Your task to perform on an android device: turn pop-ups on in chrome Image 0: 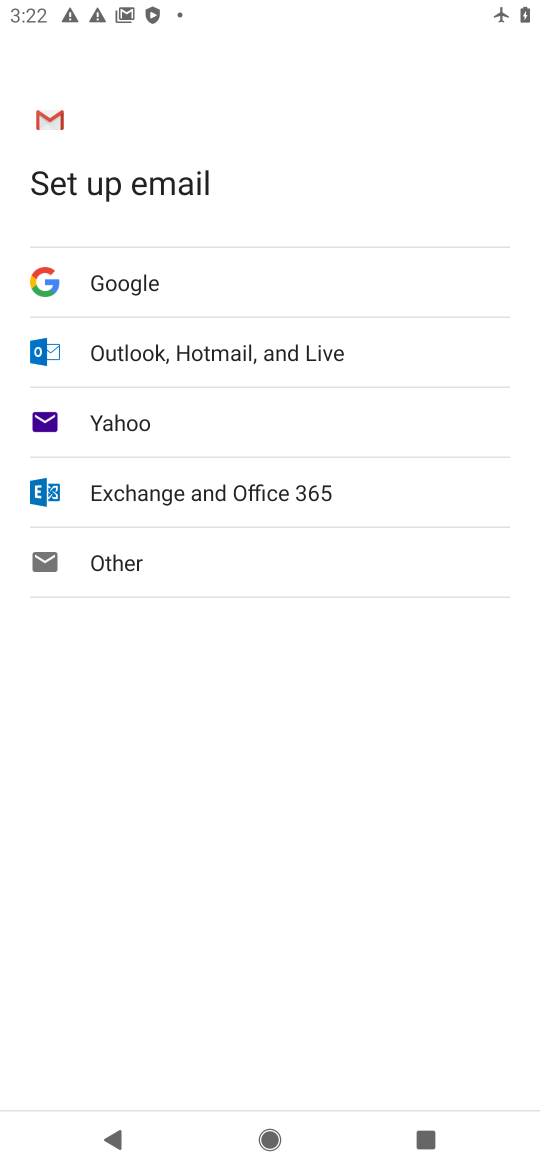
Step 0: press home button
Your task to perform on an android device: turn pop-ups on in chrome Image 1: 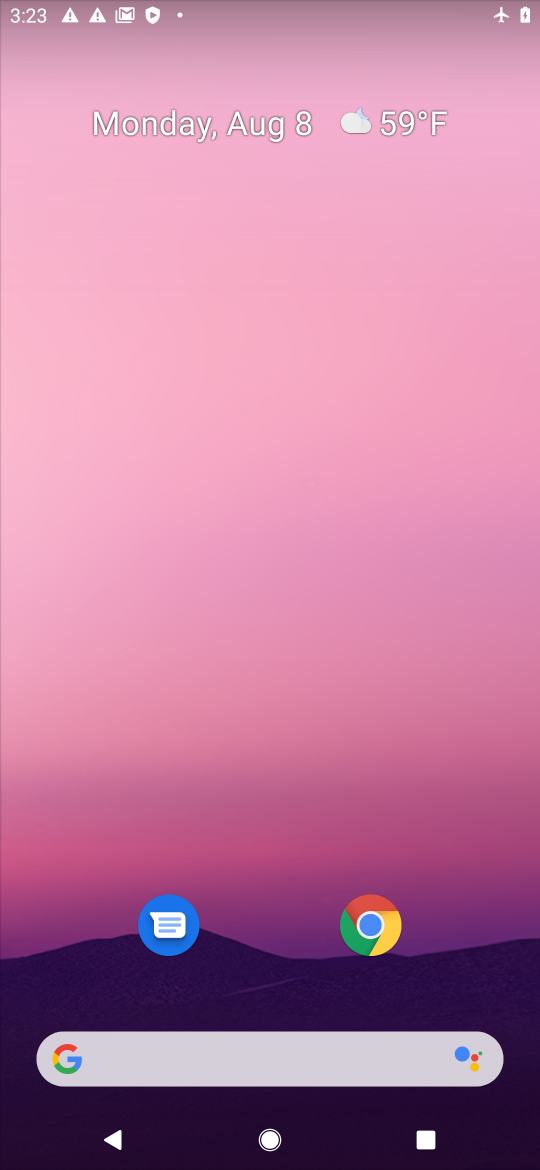
Step 1: click (368, 920)
Your task to perform on an android device: turn pop-ups on in chrome Image 2: 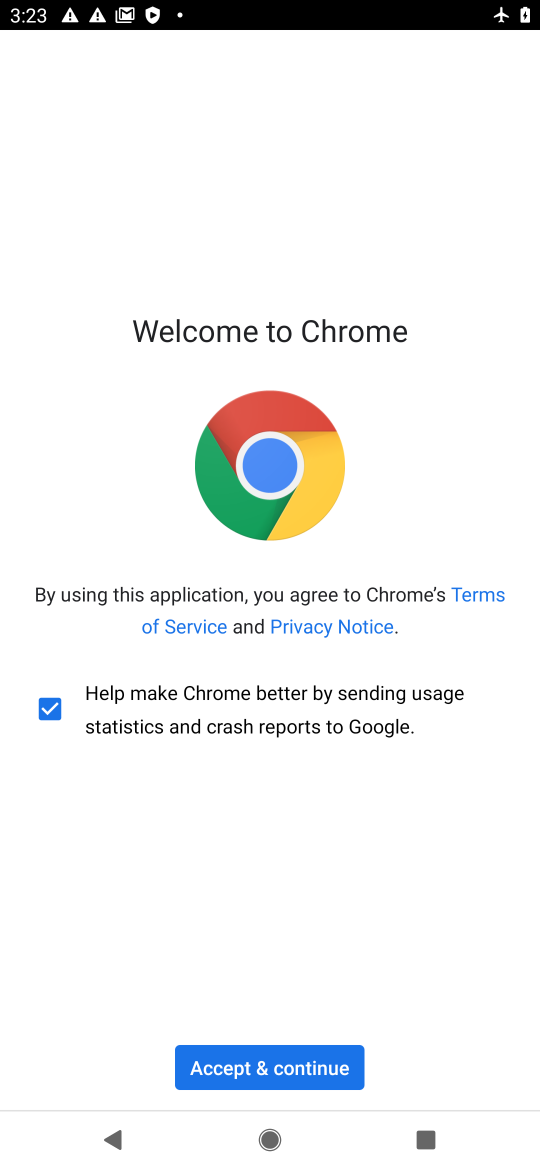
Step 2: click (281, 1063)
Your task to perform on an android device: turn pop-ups on in chrome Image 3: 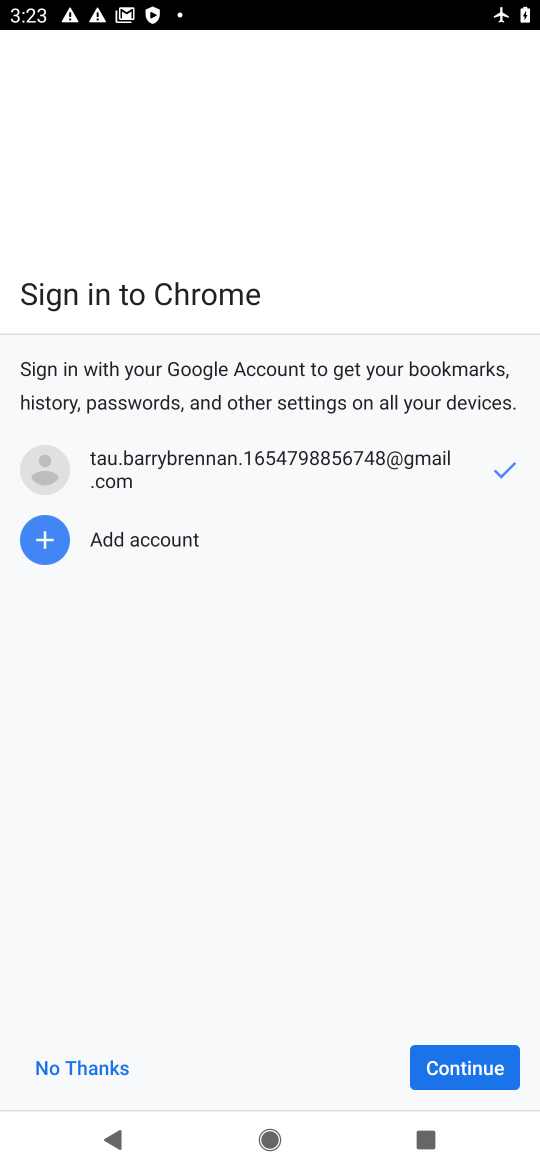
Step 3: click (465, 1062)
Your task to perform on an android device: turn pop-ups on in chrome Image 4: 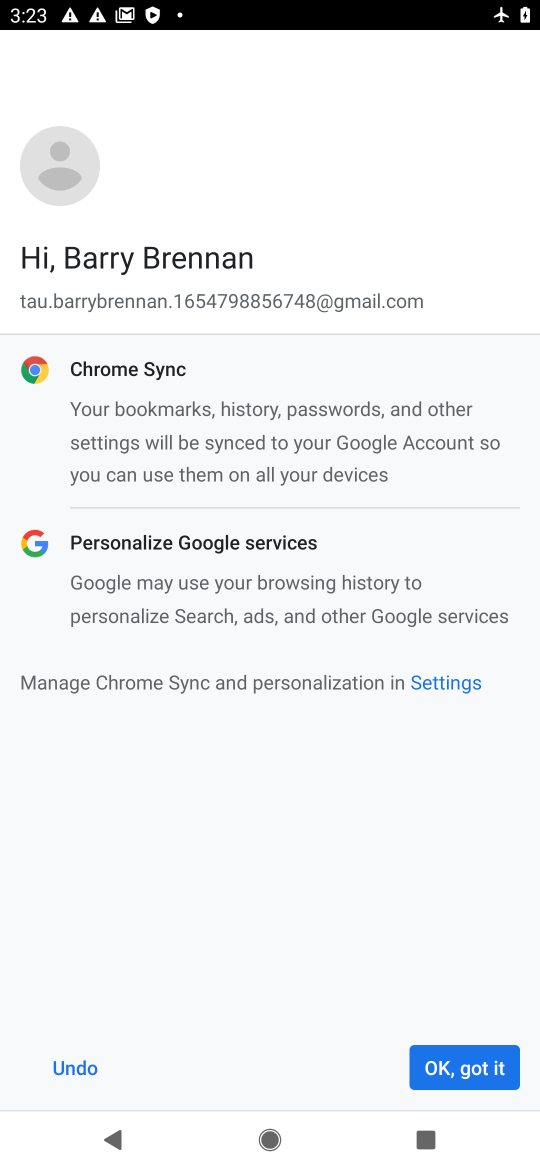
Step 4: click (465, 1062)
Your task to perform on an android device: turn pop-ups on in chrome Image 5: 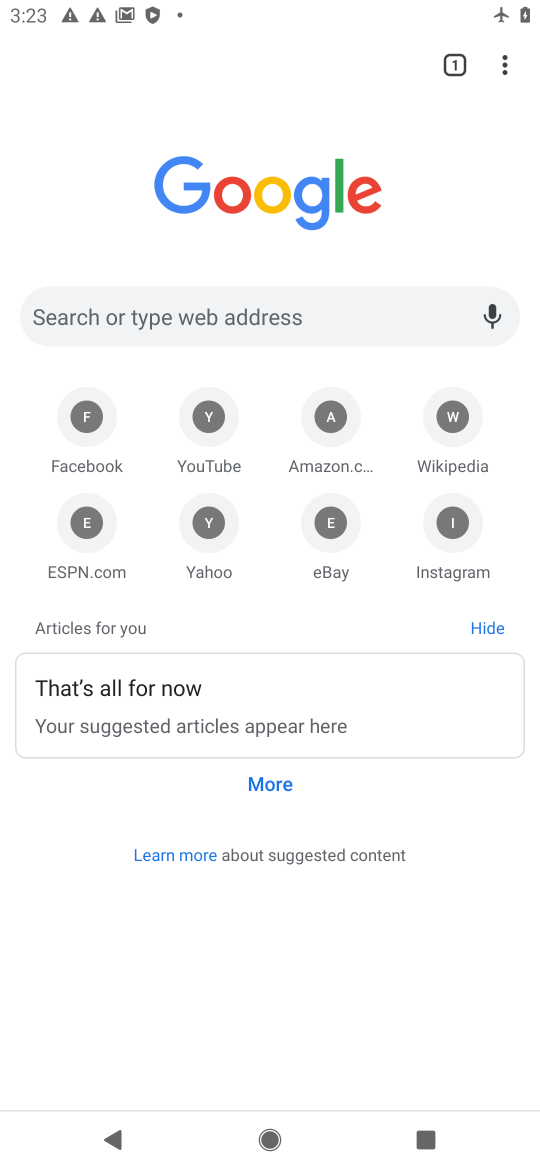
Step 5: drag from (507, 65) to (282, 540)
Your task to perform on an android device: turn pop-ups on in chrome Image 6: 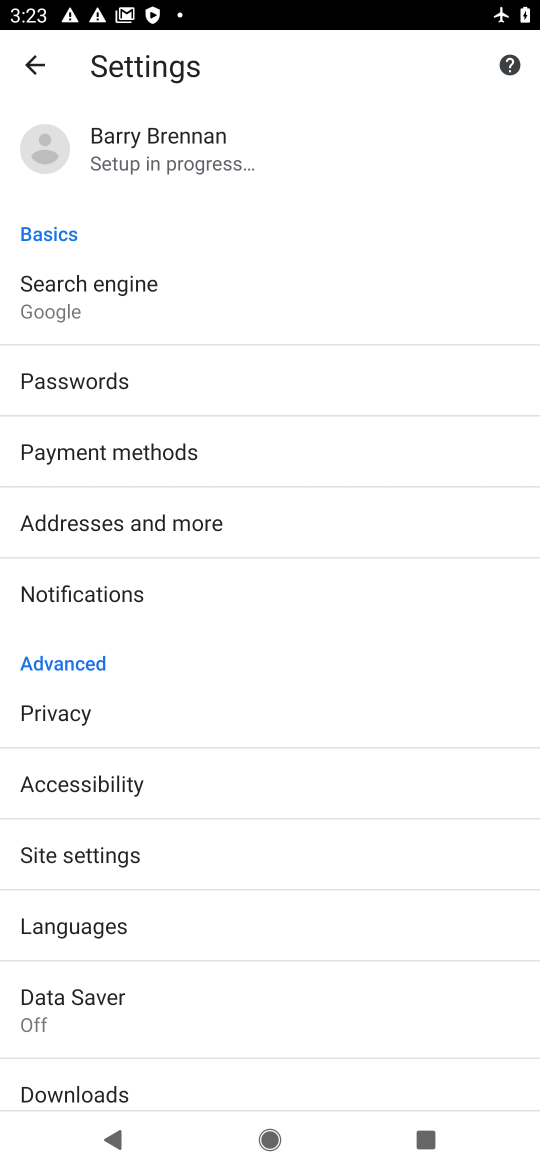
Step 6: click (65, 849)
Your task to perform on an android device: turn pop-ups on in chrome Image 7: 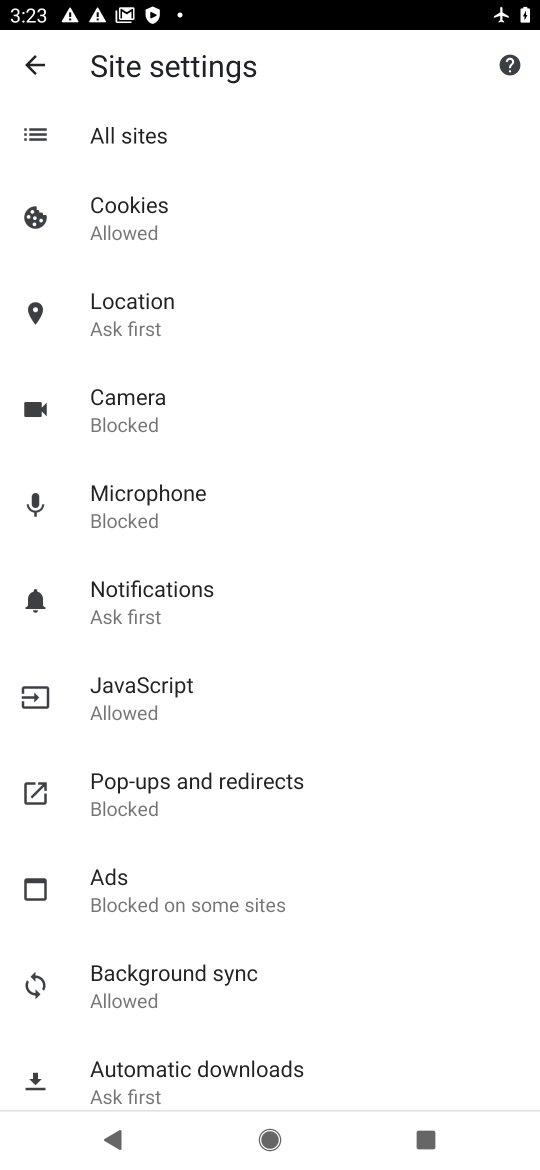
Step 7: click (144, 782)
Your task to perform on an android device: turn pop-ups on in chrome Image 8: 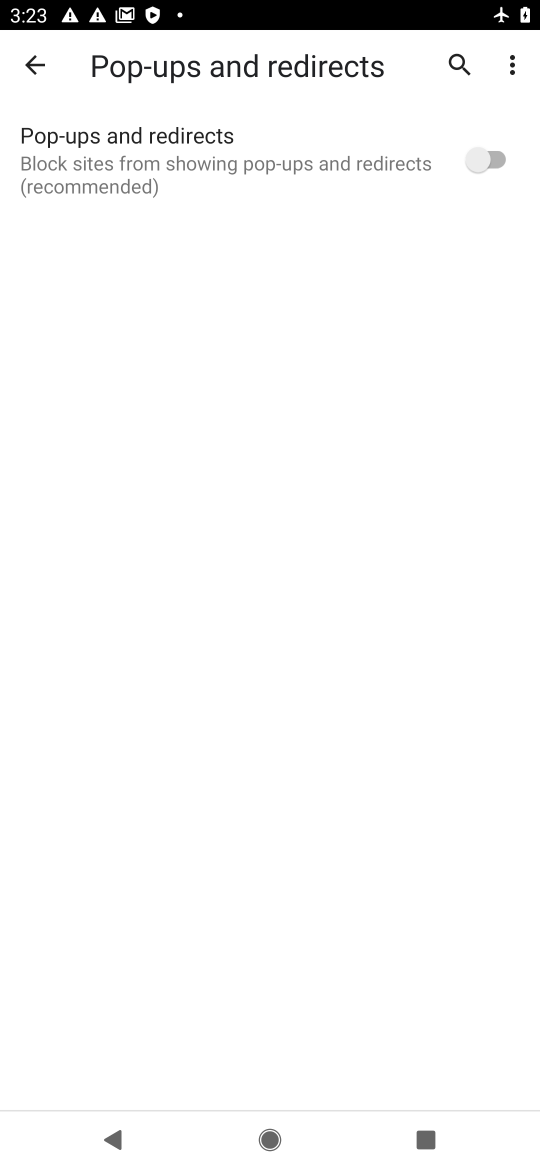
Step 8: click (499, 144)
Your task to perform on an android device: turn pop-ups on in chrome Image 9: 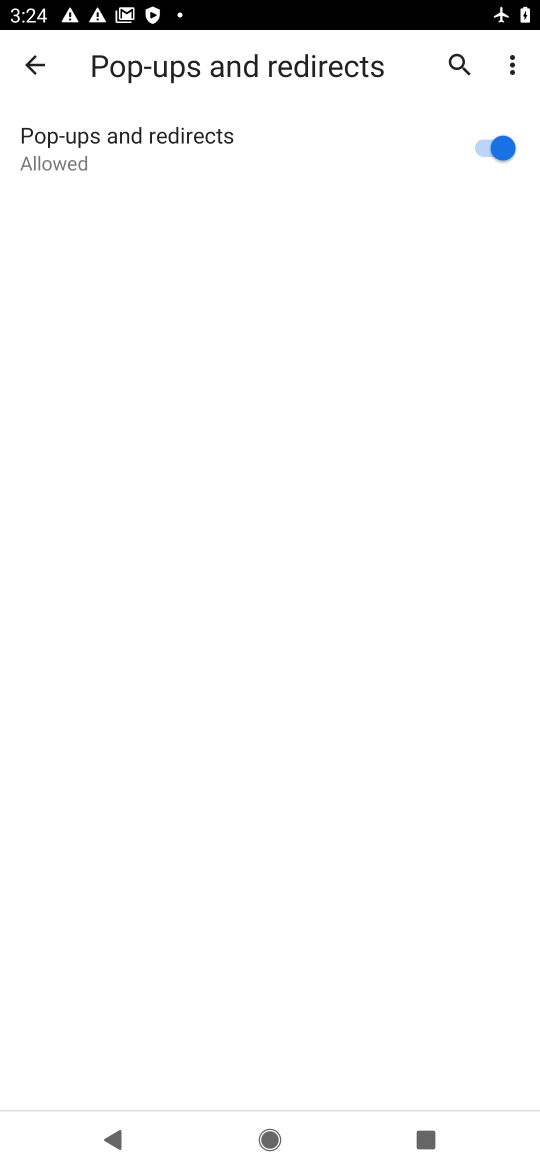
Step 9: task complete